Your task to perform on an android device: turn on javascript in the chrome app Image 0: 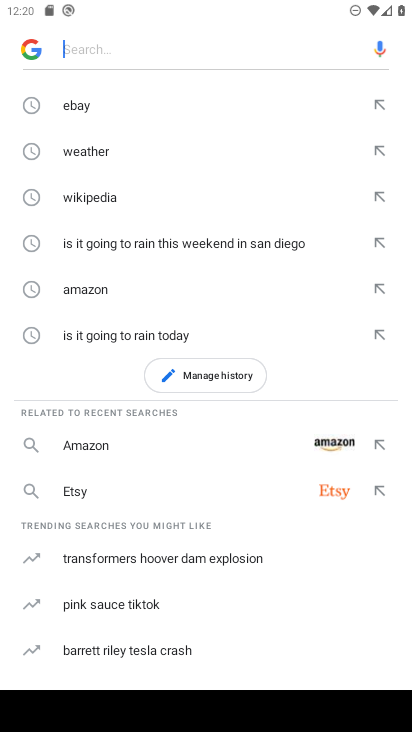
Step 0: drag from (201, 624) to (219, 292)
Your task to perform on an android device: turn on javascript in the chrome app Image 1: 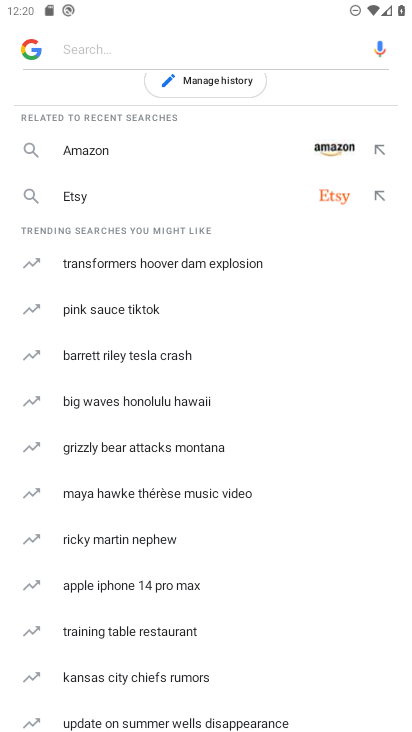
Step 1: drag from (265, 210) to (291, 701)
Your task to perform on an android device: turn on javascript in the chrome app Image 2: 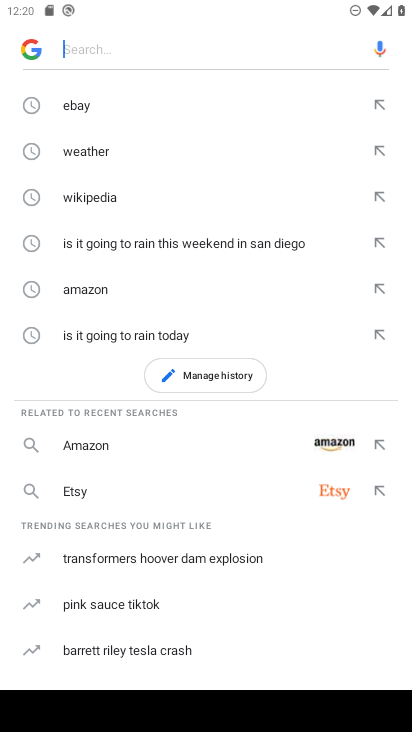
Step 2: press home button
Your task to perform on an android device: turn on javascript in the chrome app Image 3: 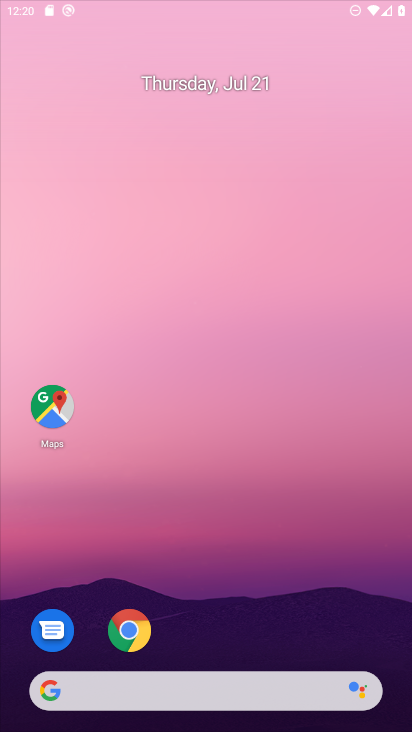
Step 3: drag from (200, 569) to (250, 75)
Your task to perform on an android device: turn on javascript in the chrome app Image 4: 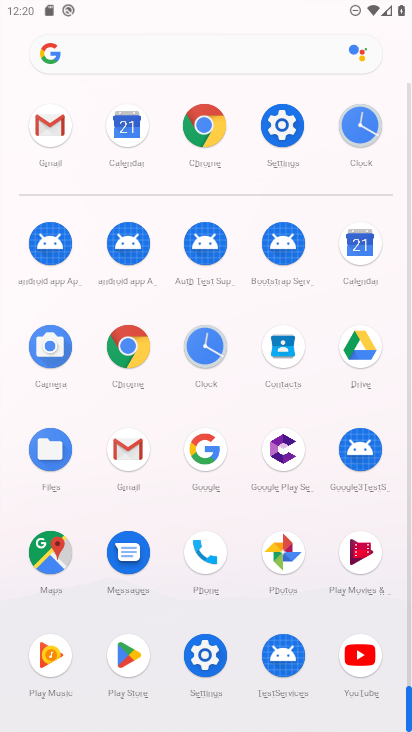
Step 4: click (126, 339)
Your task to perform on an android device: turn on javascript in the chrome app Image 5: 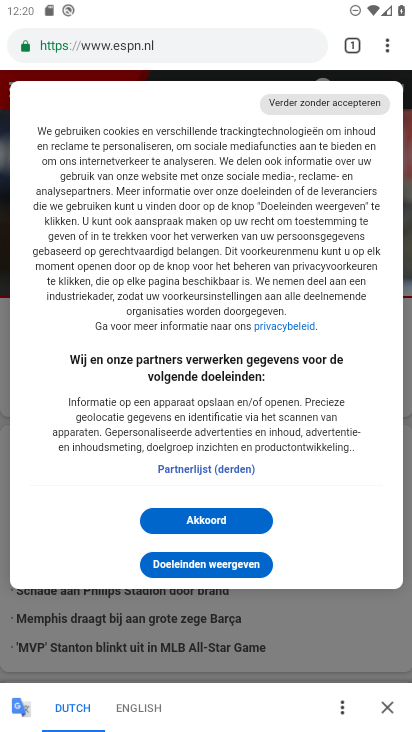
Step 5: drag from (384, 43) to (227, 558)
Your task to perform on an android device: turn on javascript in the chrome app Image 6: 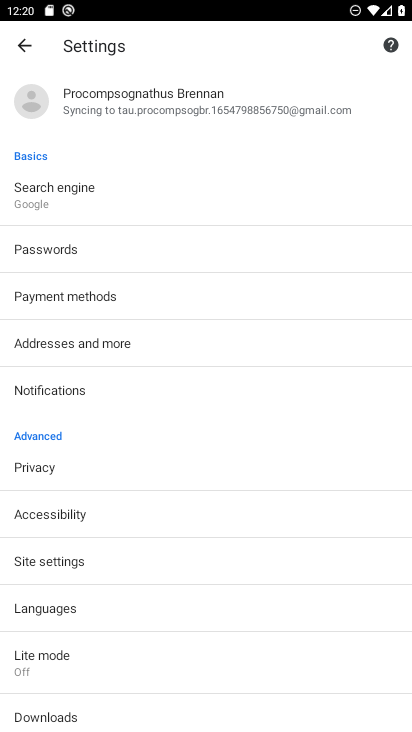
Step 6: click (68, 571)
Your task to perform on an android device: turn on javascript in the chrome app Image 7: 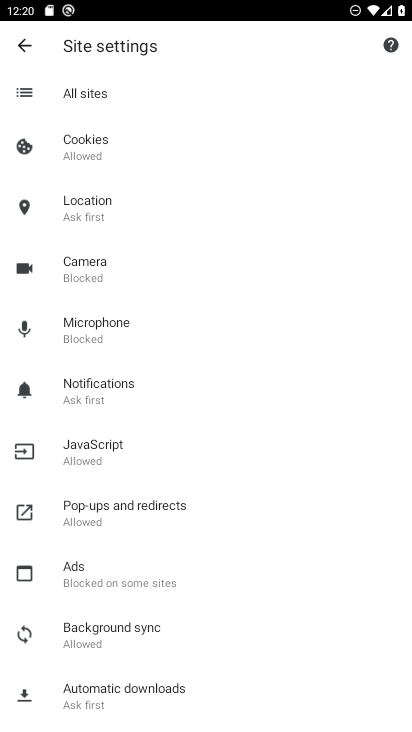
Step 7: click (98, 453)
Your task to perform on an android device: turn on javascript in the chrome app Image 8: 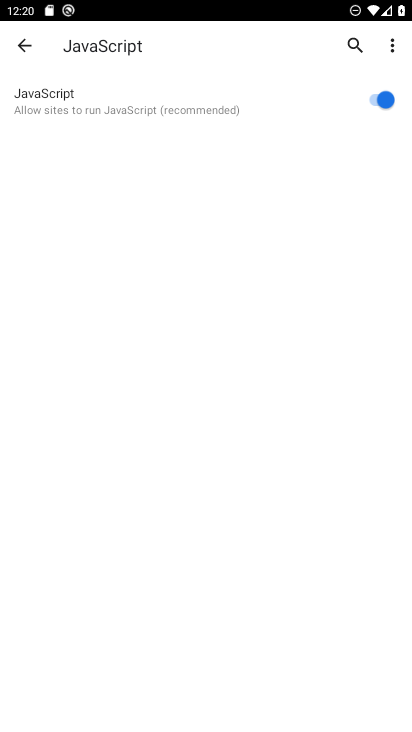
Step 8: task complete